Your task to perform on an android device: Go to wifi settings Image 0: 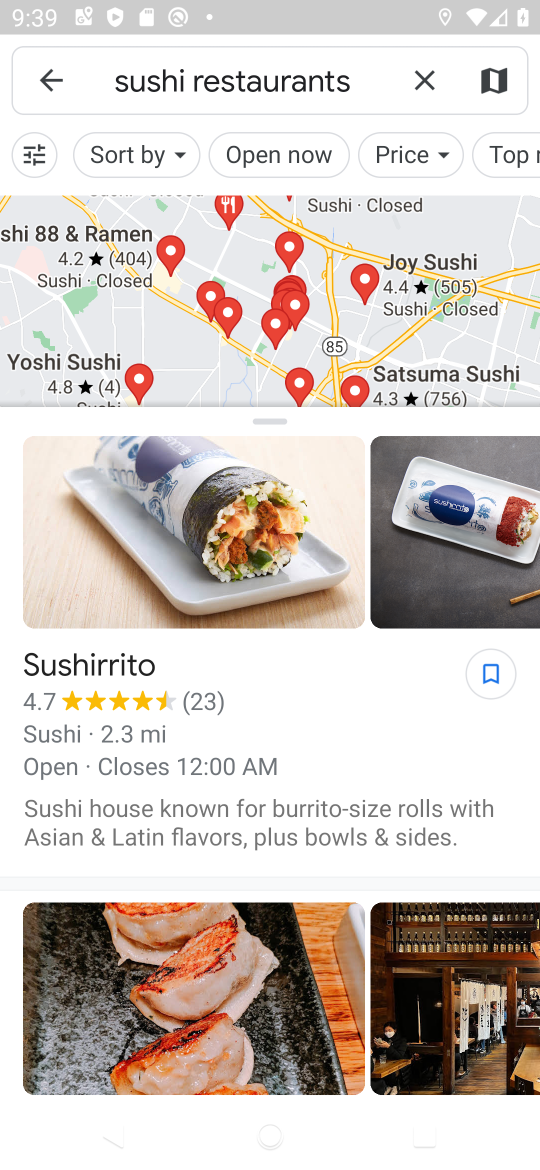
Step 0: press home button
Your task to perform on an android device: Go to wifi settings Image 1: 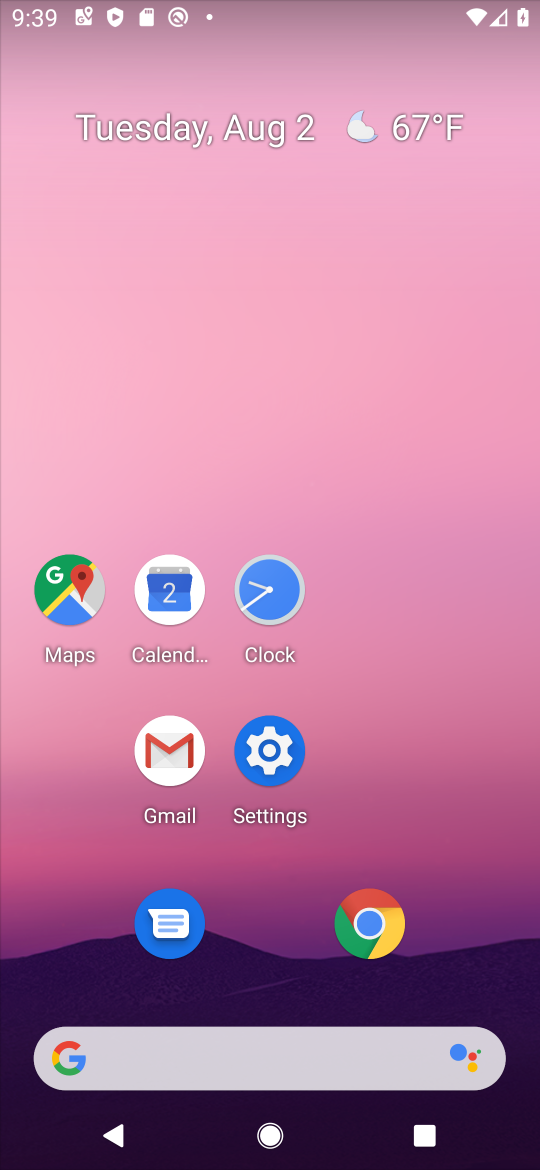
Step 1: click (276, 756)
Your task to perform on an android device: Go to wifi settings Image 2: 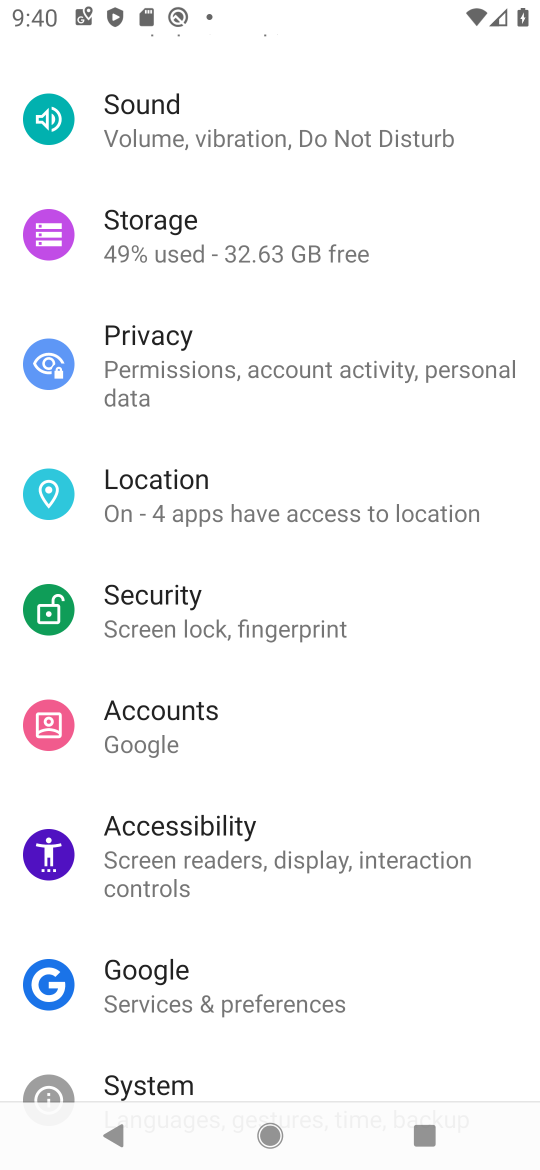
Step 2: drag from (227, 176) to (256, 953)
Your task to perform on an android device: Go to wifi settings Image 3: 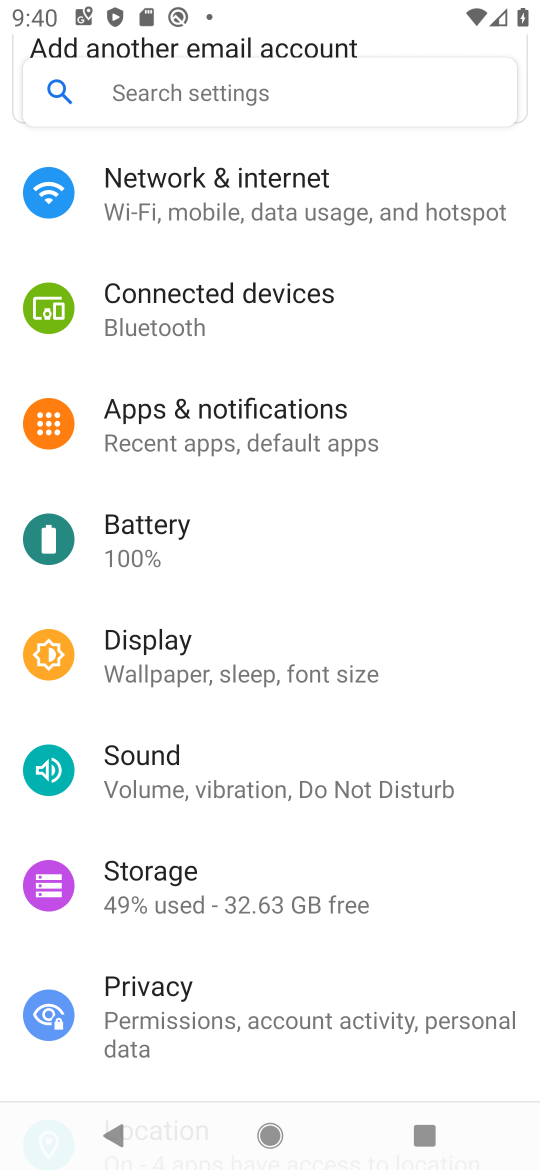
Step 3: drag from (290, 299) to (322, 838)
Your task to perform on an android device: Go to wifi settings Image 4: 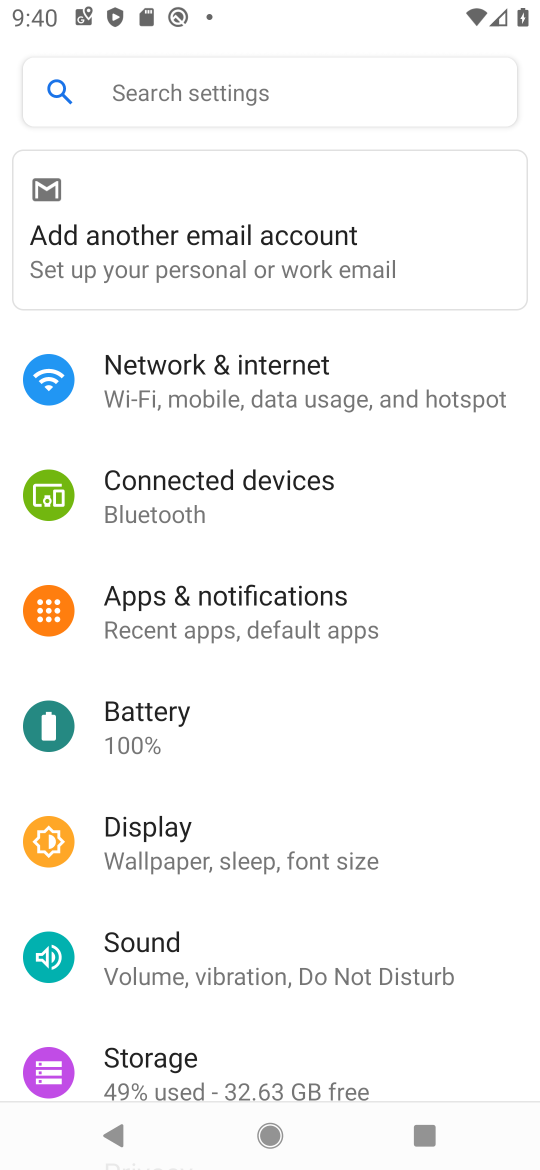
Step 4: click (238, 389)
Your task to perform on an android device: Go to wifi settings Image 5: 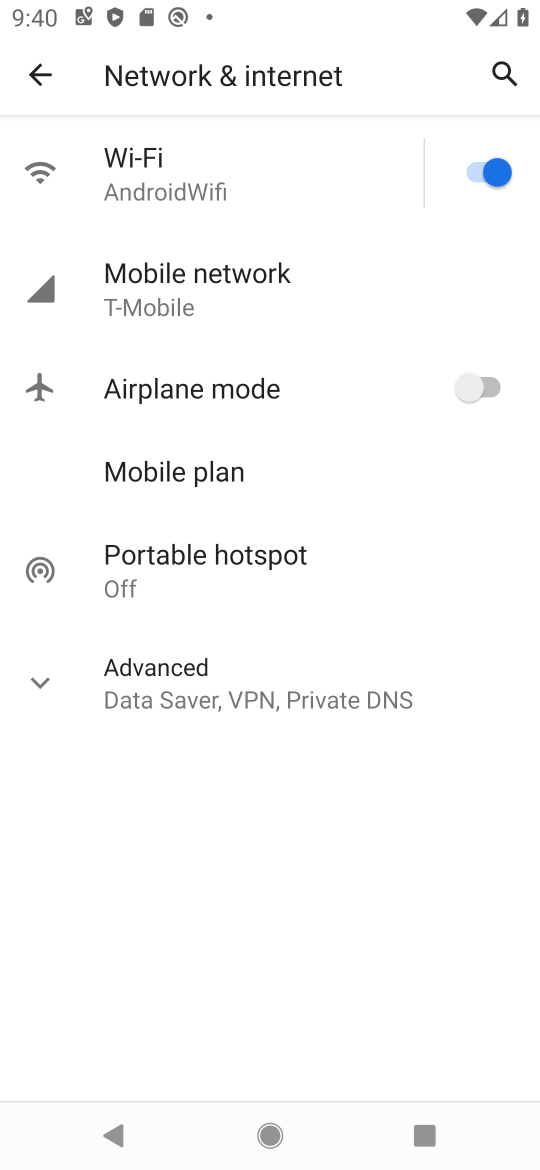
Step 5: click (142, 182)
Your task to perform on an android device: Go to wifi settings Image 6: 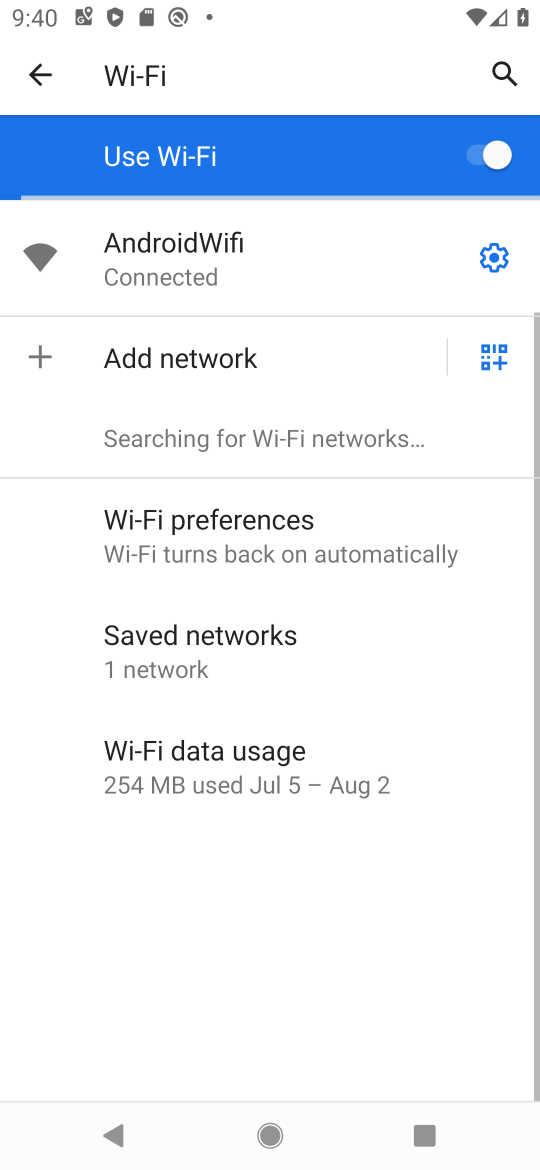
Step 6: click (485, 262)
Your task to perform on an android device: Go to wifi settings Image 7: 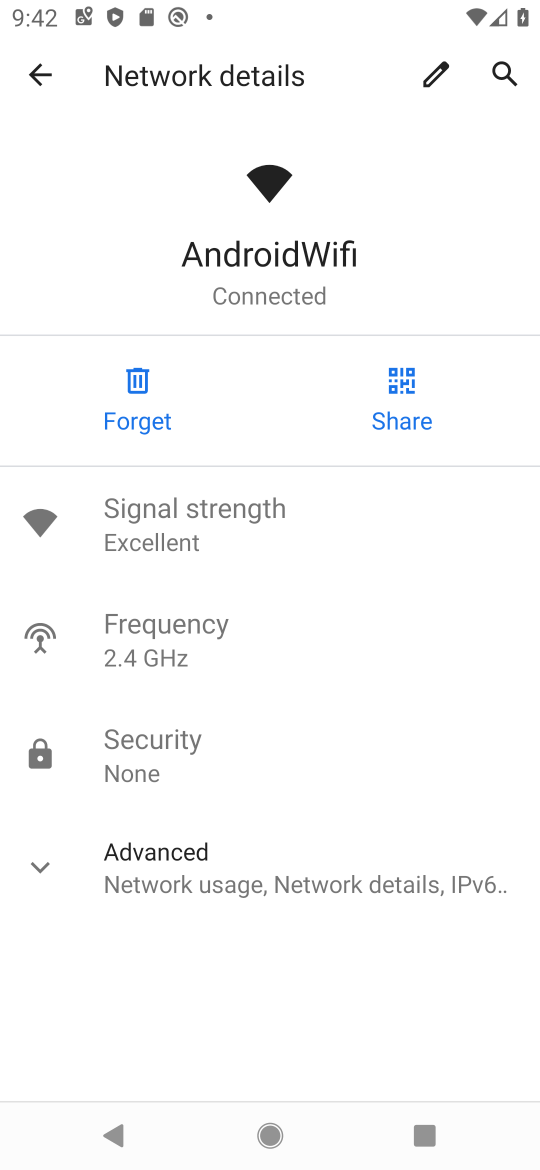
Step 7: task complete